Your task to perform on an android device: Open privacy settings Image 0: 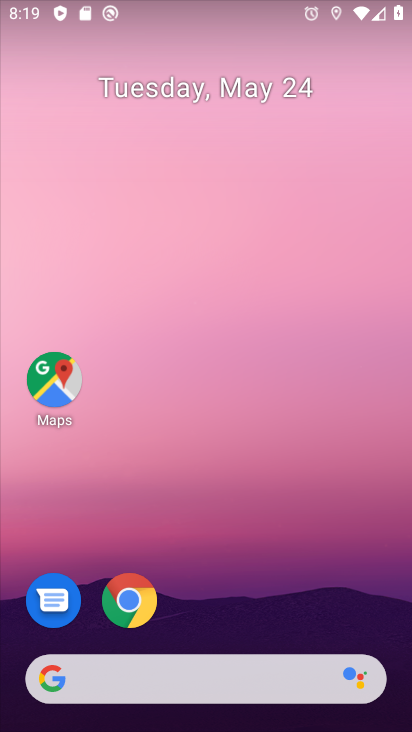
Step 0: drag from (202, 727) to (193, 72)
Your task to perform on an android device: Open privacy settings Image 1: 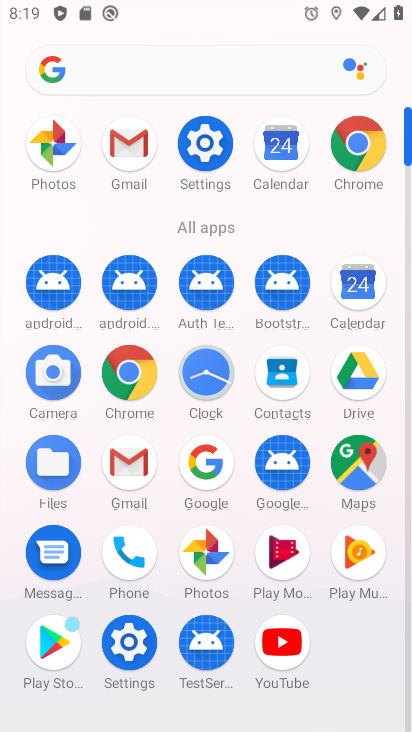
Step 1: click (206, 140)
Your task to perform on an android device: Open privacy settings Image 2: 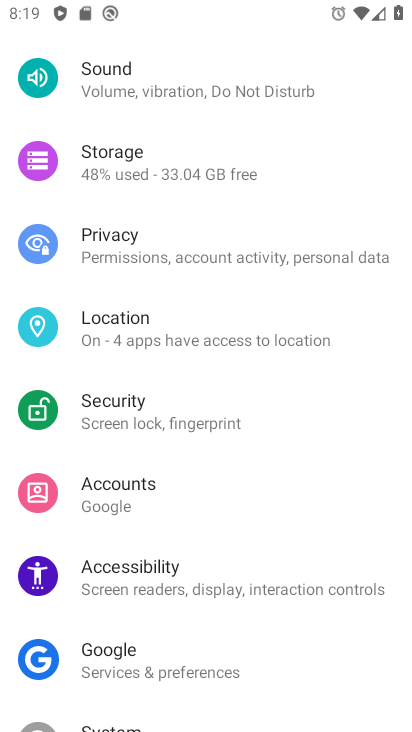
Step 2: click (126, 239)
Your task to perform on an android device: Open privacy settings Image 3: 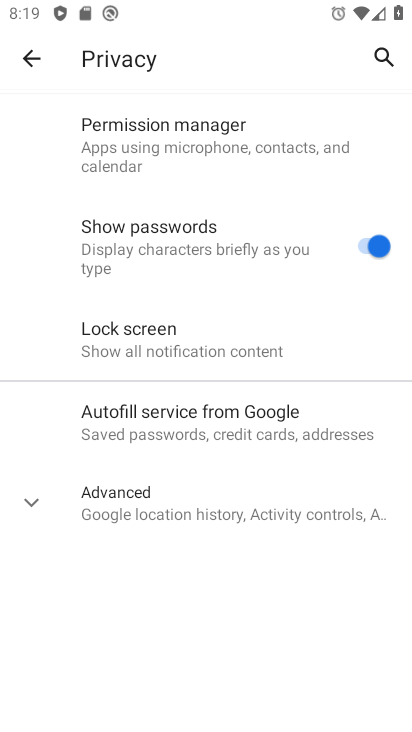
Step 3: task complete